Your task to perform on an android device: open wifi settings Image 0: 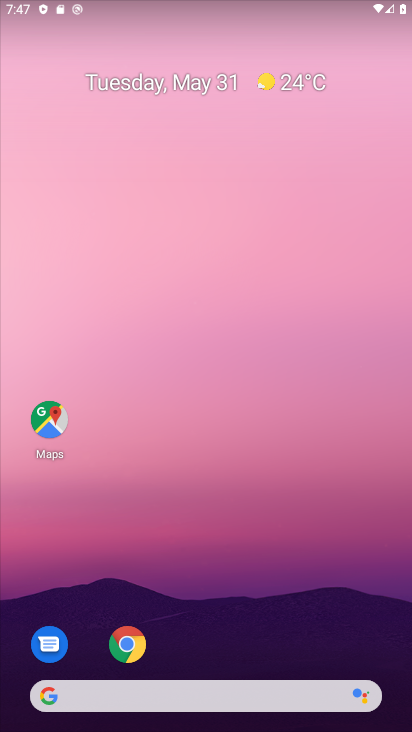
Step 0: drag from (294, 624) to (305, 192)
Your task to perform on an android device: open wifi settings Image 1: 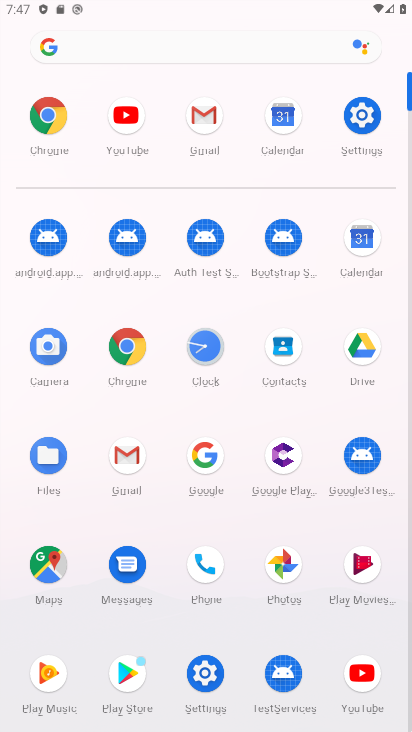
Step 1: click (354, 128)
Your task to perform on an android device: open wifi settings Image 2: 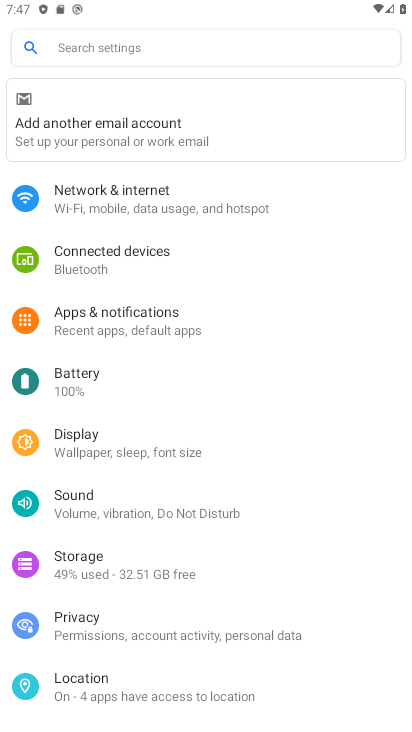
Step 2: click (70, 200)
Your task to perform on an android device: open wifi settings Image 3: 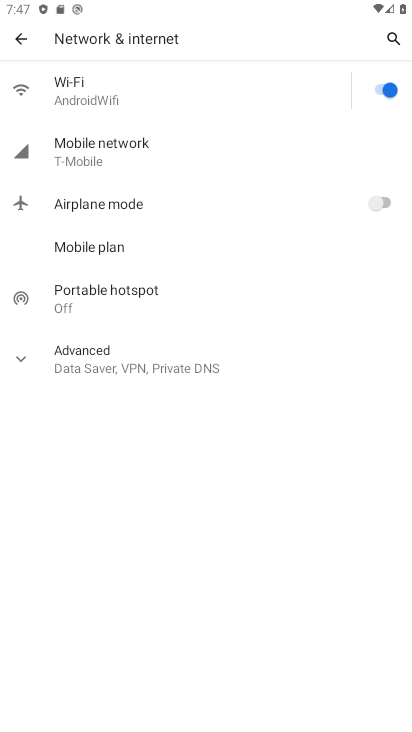
Step 3: click (101, 92)
Your task to perform on an android device: open wifi settings Image 4: 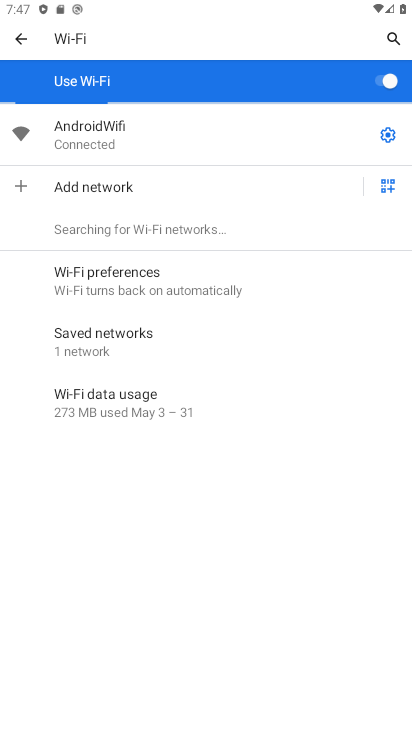
Step 4: click (387, 138)
Your task to perform on an android device: open wifi settings Image 5: 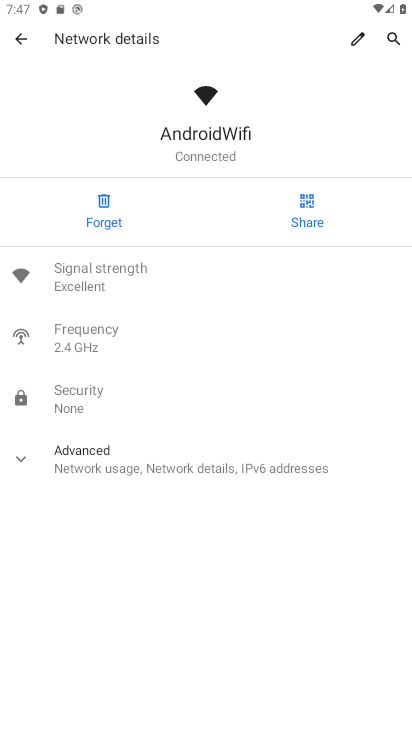
Step 5: task complete